Your task to perform on an android device: Show me productivity apps on the Play Store Image 0: 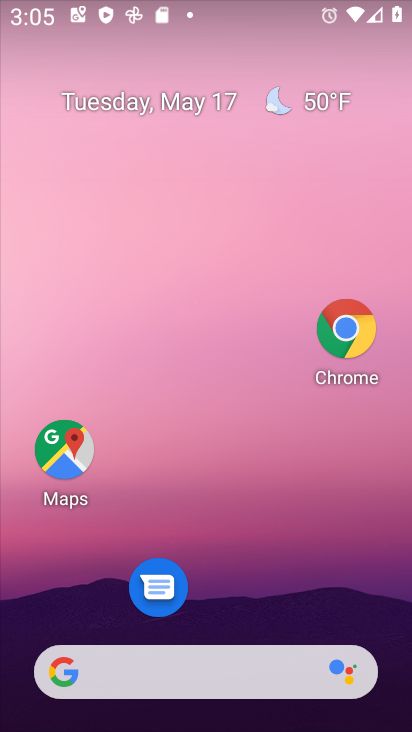
Step 0: drag from (272, 603) to (282, 27)
Your task to perform on an android device: Show me productivity apps on the Play Store Image 1: 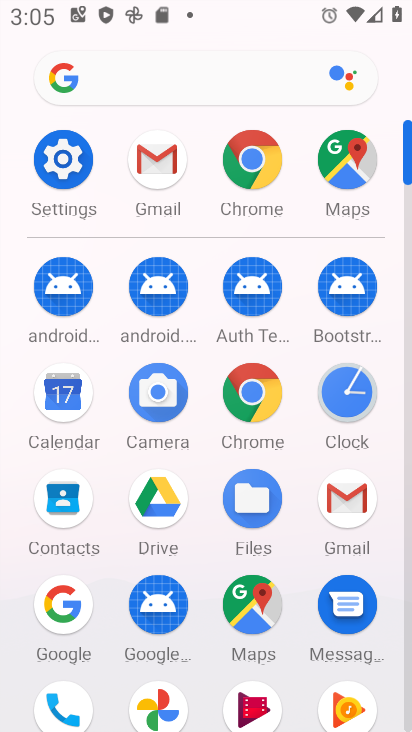
Step 1: click (406, 685)
Your task to perform on an android device: Show me productivity apps on the Play Store Image 2: 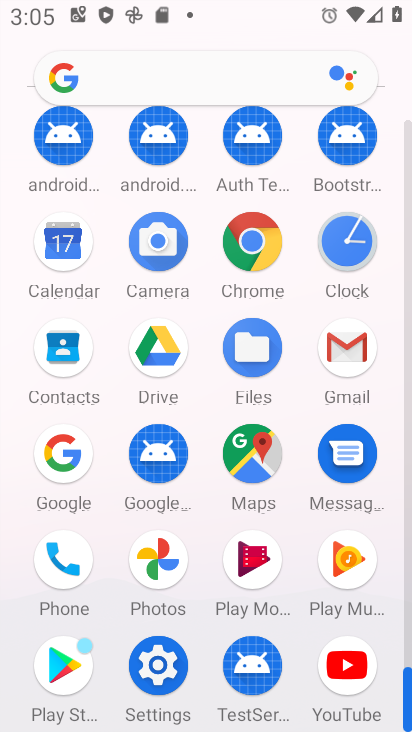
Step 2: click (66, 676)
Your task to perform on an android device: Show me productivity apps on the Play Store Image 3: 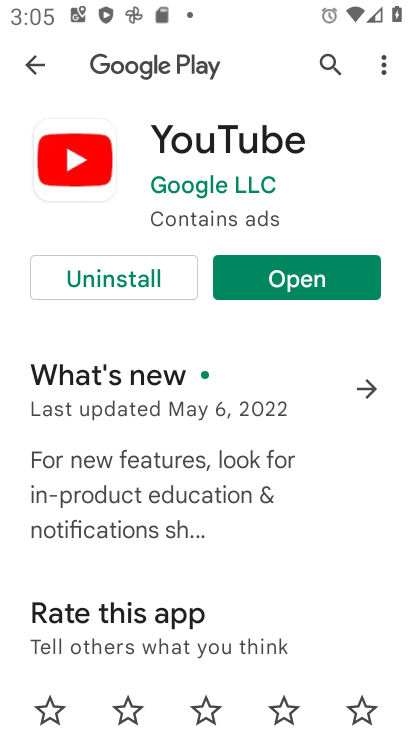
Step 3: click (41, 66)
Your task to perform on an android device: Show me productivity apps on the Play Store Image 4: 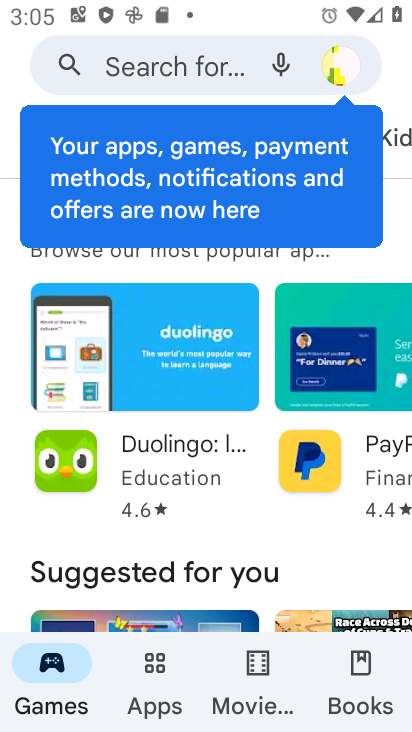
Step 4: click (13, 281)
Your task to perform on an android device: Show me productivity apps on the Play Store Image 5: 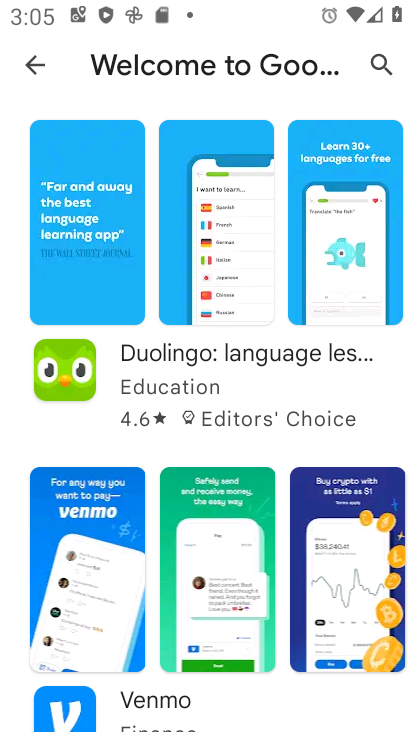
Step 5: click (44, 70)
Your task to perform on an android device: Show me productivity apps on the Play Store Image 6: 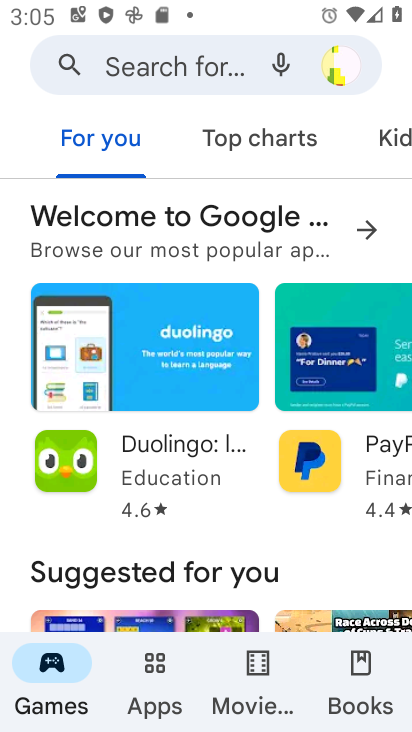
Step 6: click (237, 146)
Your task to perform on an android device: Show me productivity apps on the Play Store Image 7: 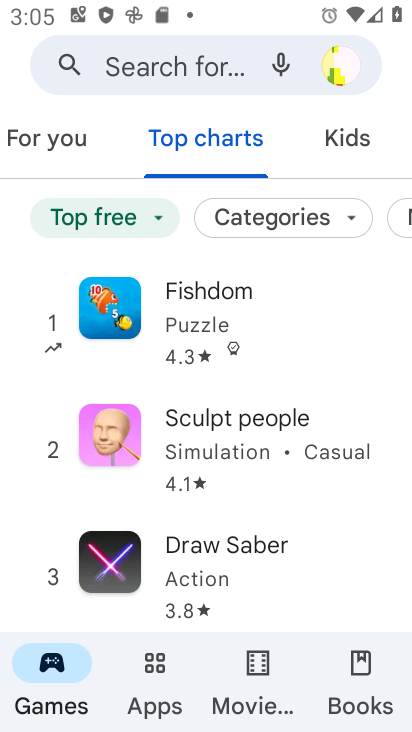
Step 7: click (327, 217)
Your task to perform on an android device: Show me productivity apps on the Play Store Image 8: 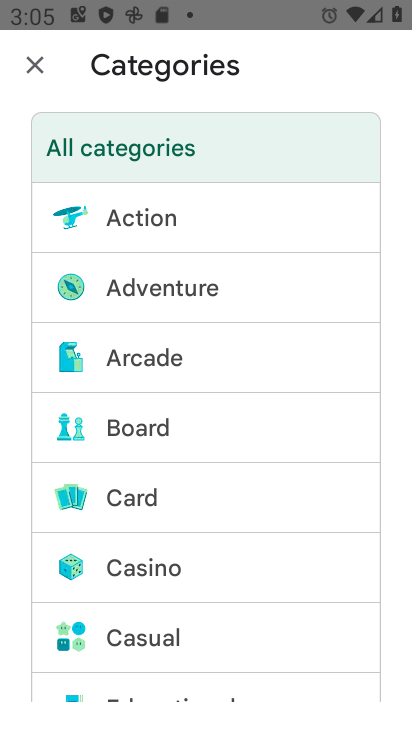
Step 8: drag from (219, 576) to (352, 3)
Your task to perform on an android device: Show me productivity apps on the Play Store Image 9: 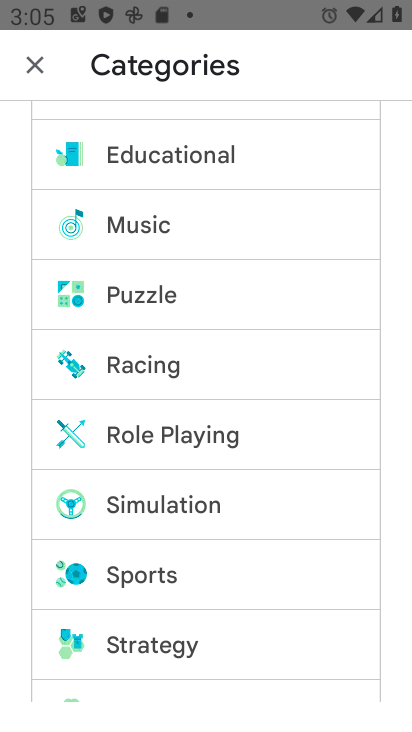
Step 9: drag from (253, 454) to (340, 79)
Your task to perform on an android device: Show me productivity apps on the Play Store Image 10: 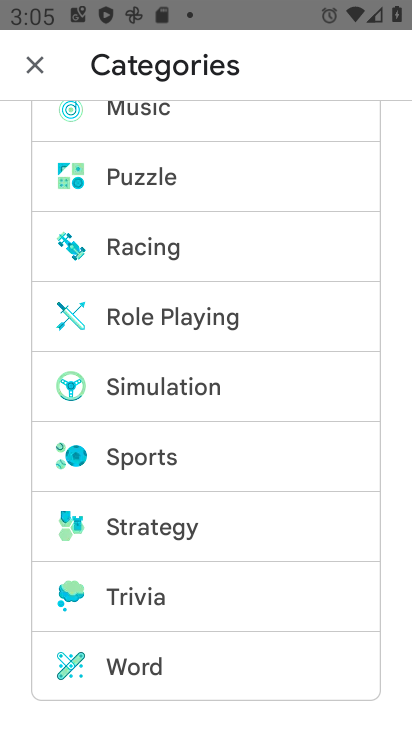
Step 10: drag from (181, 637) to (248, 319)
Your task to perform on an android device: Show me productivity apps on the Play Store Image 11: 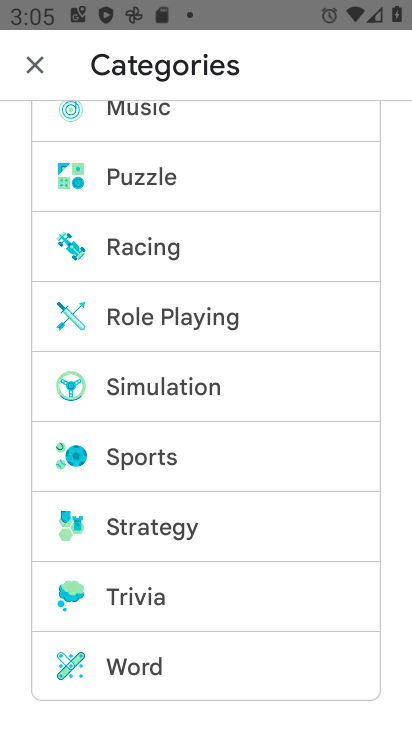
Step 11: drag from (238, 231) to (203, 604)
Your task to perform on an android device: Show me productivity apps on the Play Store Image 12: 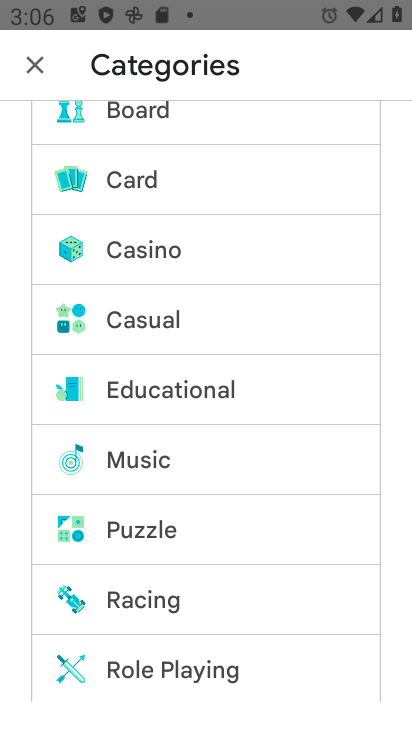
Step 12: click (34, 56)
Your task to perform on an android device: Show me productivity apps on the Play Store Image 13: 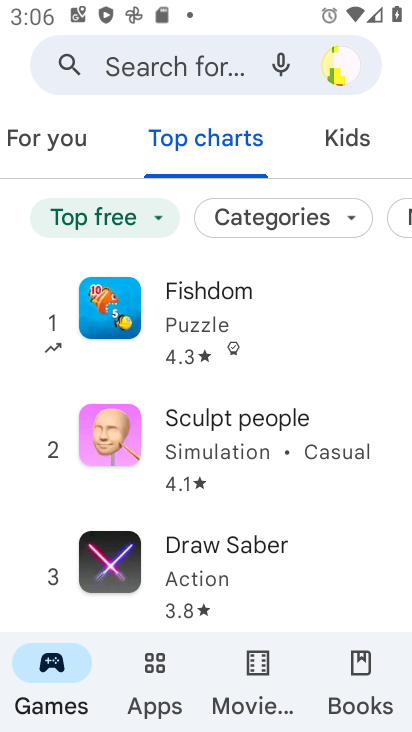
Step 13: click (123, 680)
Your task to perform on an android device: Show me productivity apps on the Play Store Image 14: 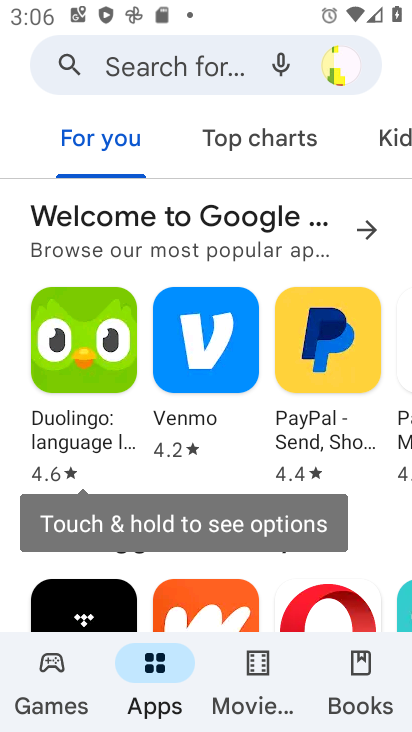
Step 14: click (235, 141)
Your task to perform on an android device: Show me productivity apps on the Play Store Image 15: 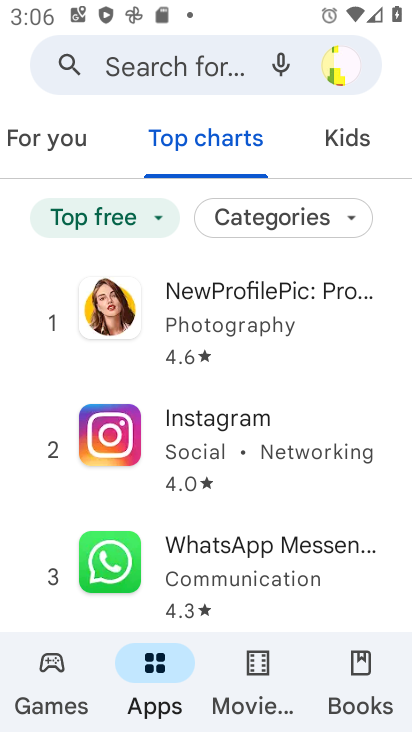
Step 15: click (306, 215)
Your task to perform on an android device: Show me productivity apps on the Play Store Image 16: 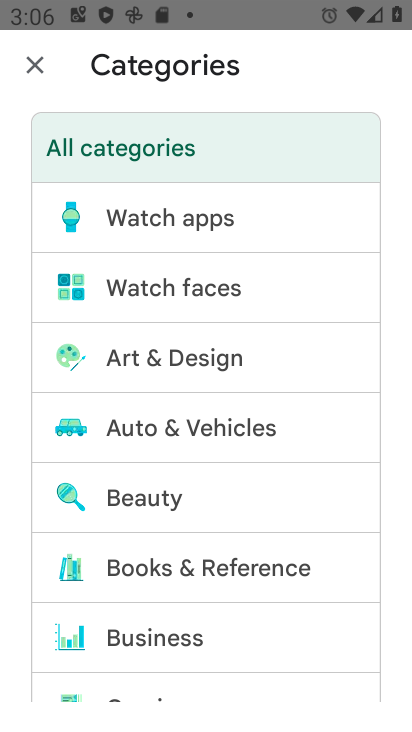
Step 16: drag from (214, 642) to (268, 161)
Your task to perform on an android device: Show me productivity apps on the Play Store Image 17: 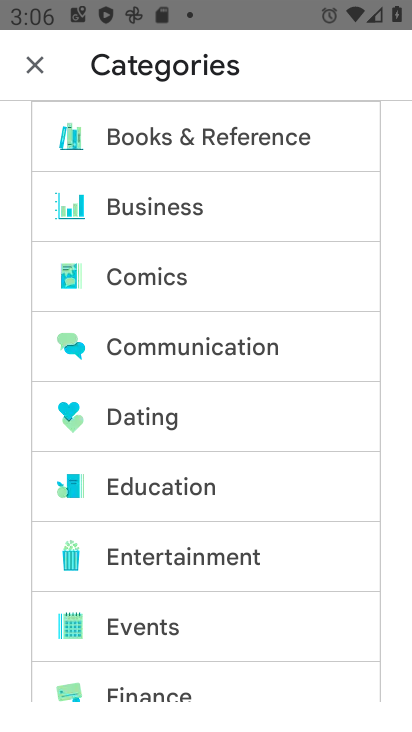
Step 17: drag from (227, 571) to (274, 191)
Your task to perform on an android device: Show me productivity apps on the Play Store Image 18: 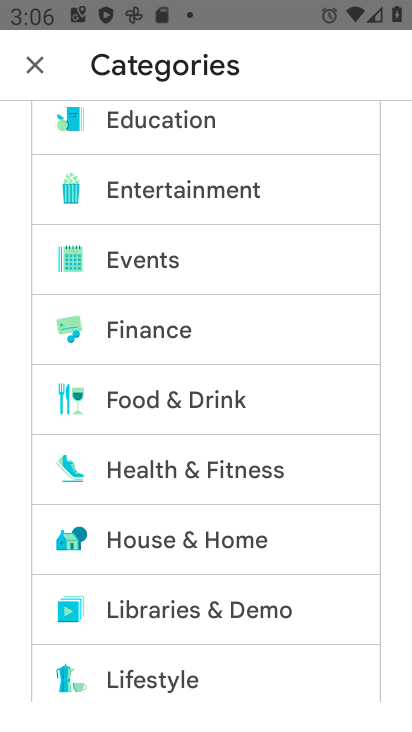
Step 18: drag from (215, 623) to (257, 305)
Your task to perform on an android device: Show me productivity apps on the Play Store Image 19: 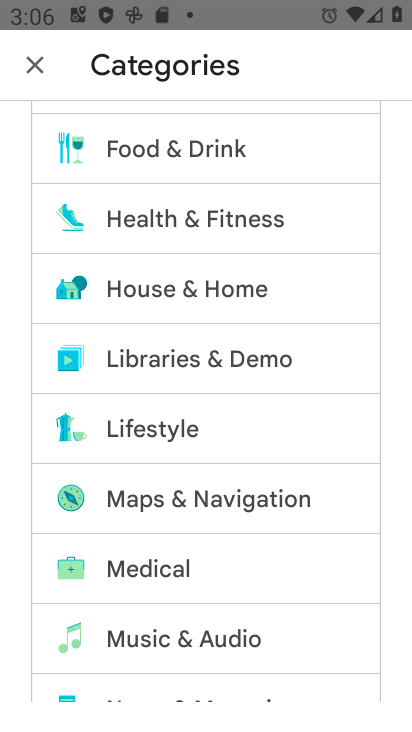
Step 19: drag from (220, 641) to (270, 390)
Your task to perform on an android device: Show me productivity apps on the Play Store Image 20: 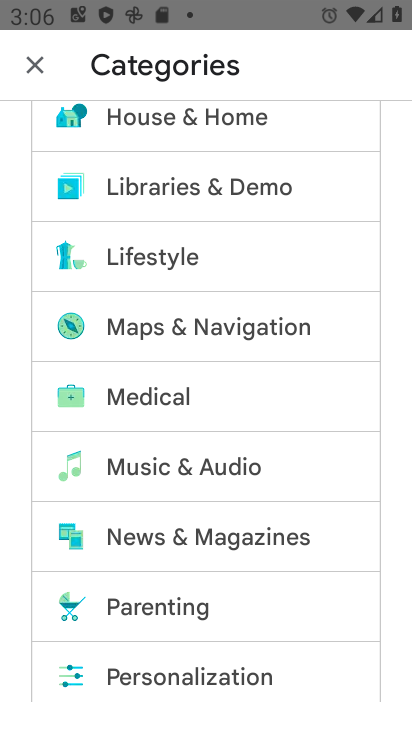
Step 20: drag from (189, 647) to (232, 360)
Your task to perform on an android device: Show me productivity apps on the Play Store Image 21: 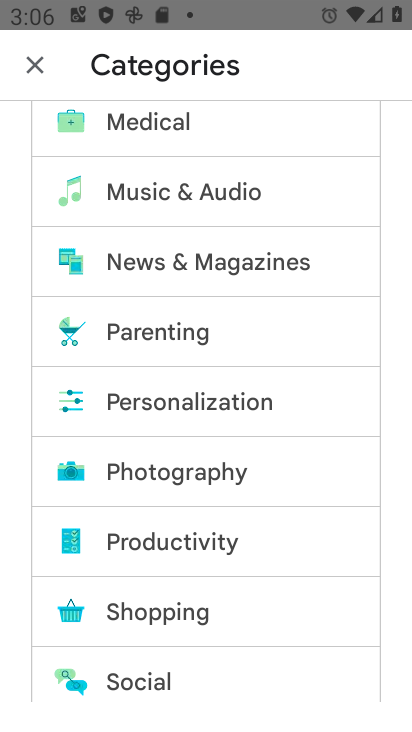
Step 21: click (216, 520)
Your task to perform on an android device: Show me productivity apps on the Play Store Image 22: 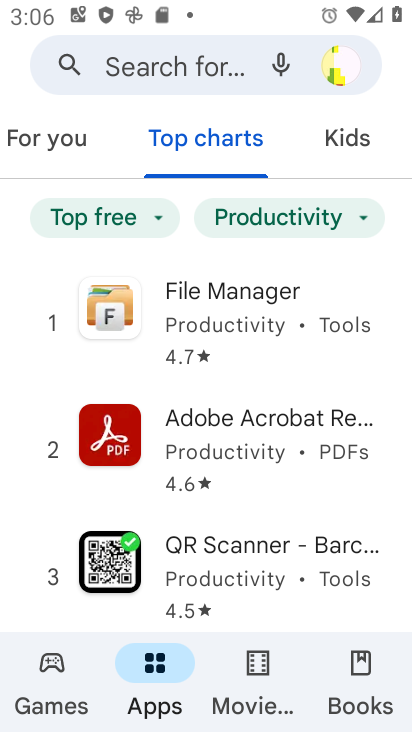
Step 22: task complete